Your task to perform on an android device: Open Reddit.com Image 0: 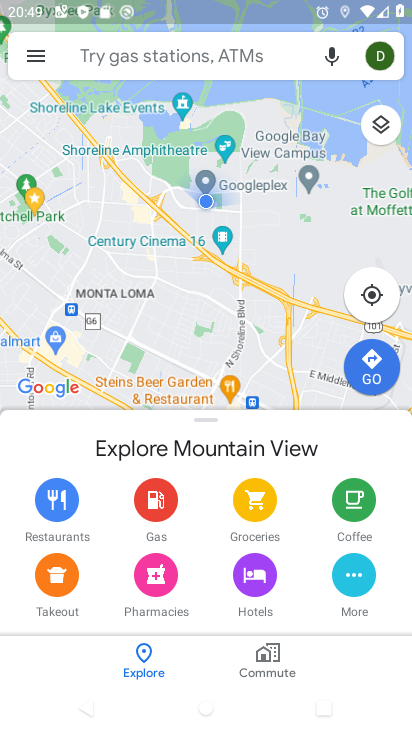
Step 0: press home button
Your task to perform on an android device: Open Reddit.com Image 1: 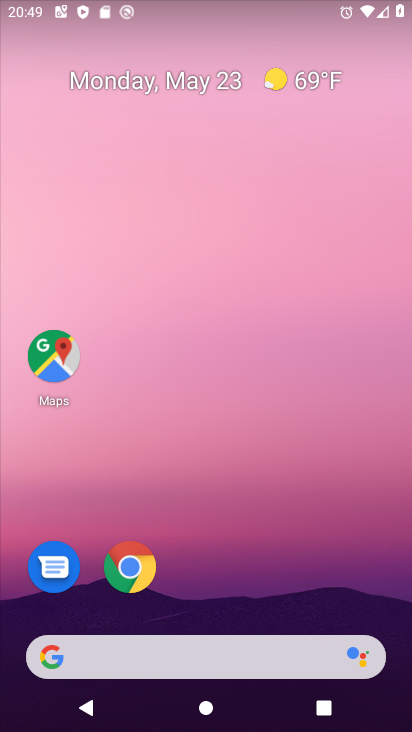
Step 1: click (121, 551)
Your task to perform on an android device: Open Reddit.com Image 2: 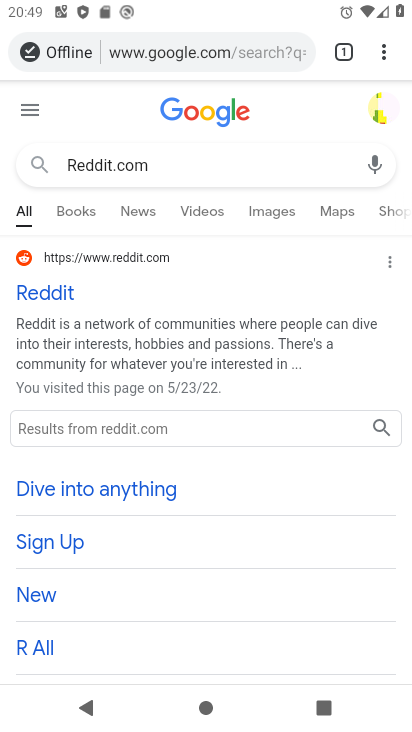
Step 2: click (78, 302)
Your task to perform on an android device: Open Reddit.com Image 3: 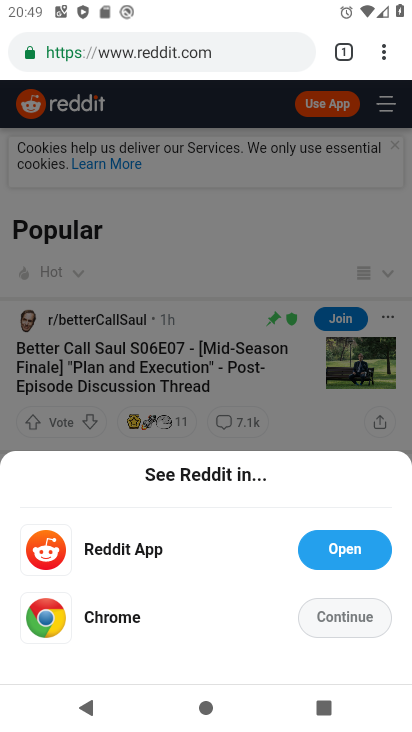
Step 3: task complete